Your task to perform on an android device: clear all cookies in the chrome app Image 0: 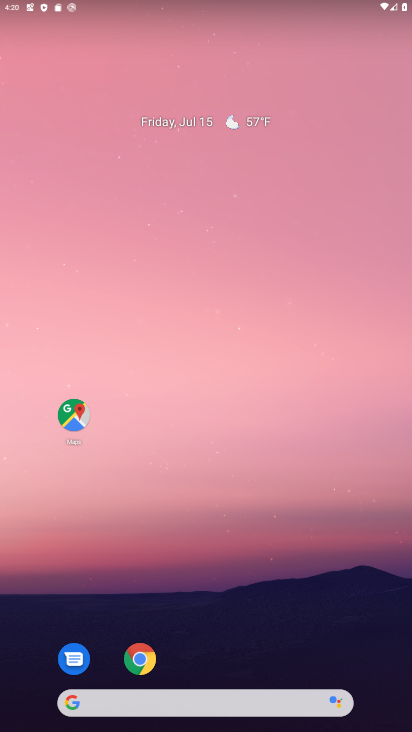
Step 0: click (139, 658)
Your task to perform on an android device: clear all cookies in the chrome app Image 1: 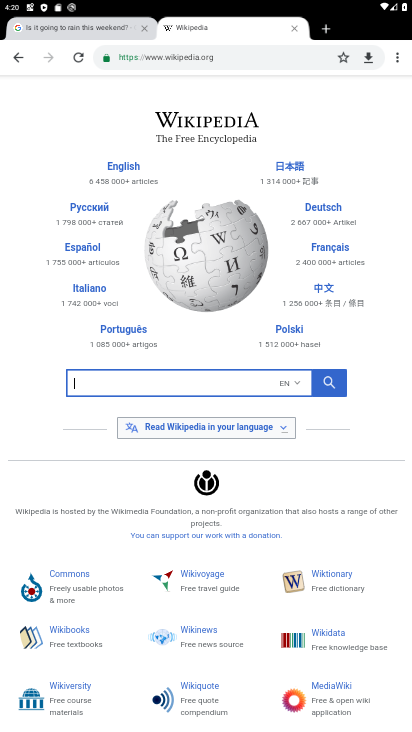
Step 1: click (399, 65)
Your task to perform on an android device: clear all cookies in the chrome app Image 2: 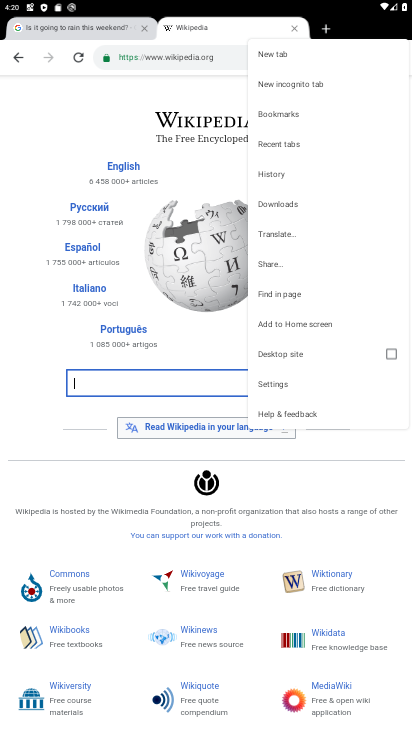
Step 2: click (284, 172)
Your task to perform on an android device: clear all cookies in the chrome app Image 3: 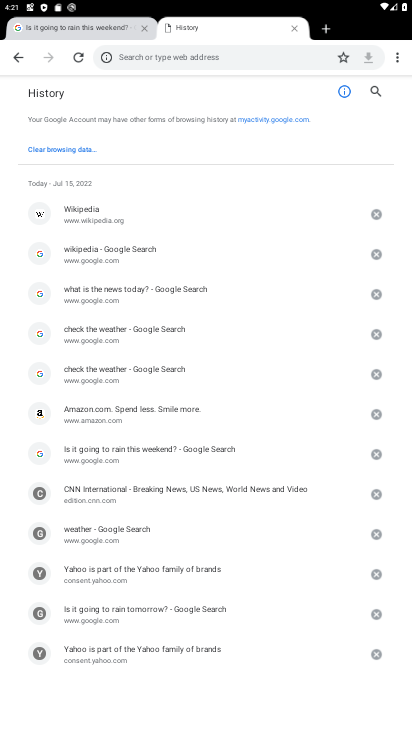
Step 3: click (76, 143)
Your task to perform on an android device: clear all cookies in the chrome app Image 4: 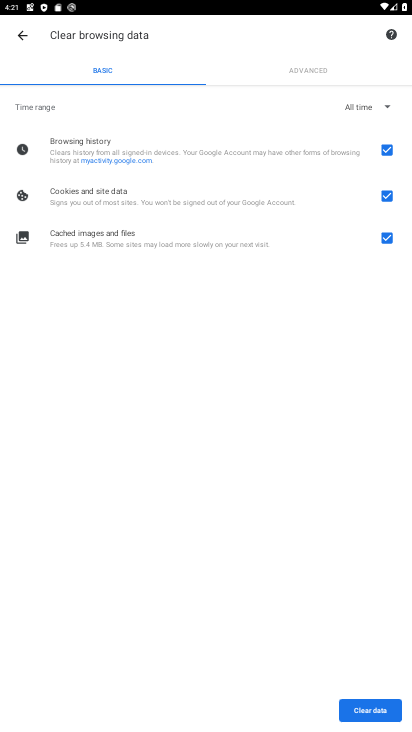
Step 4: click (387, 233)
Your task to perform on an android device: clear all cookies in the chrome app Image 5: 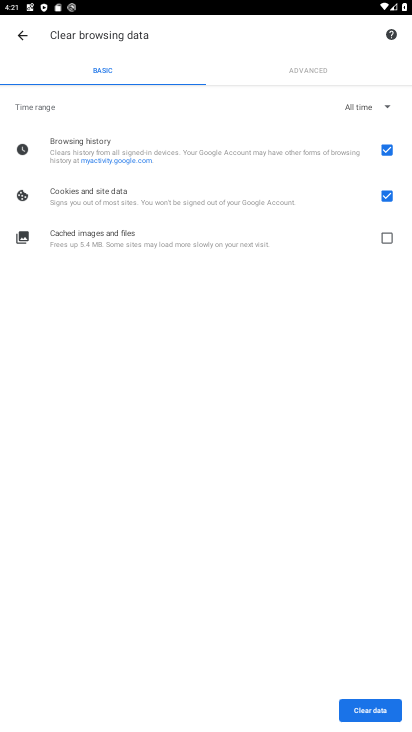
Step 5: click (387, 148)
Your task to perform on an android device: clear all cookies in the chrome app Image 6: 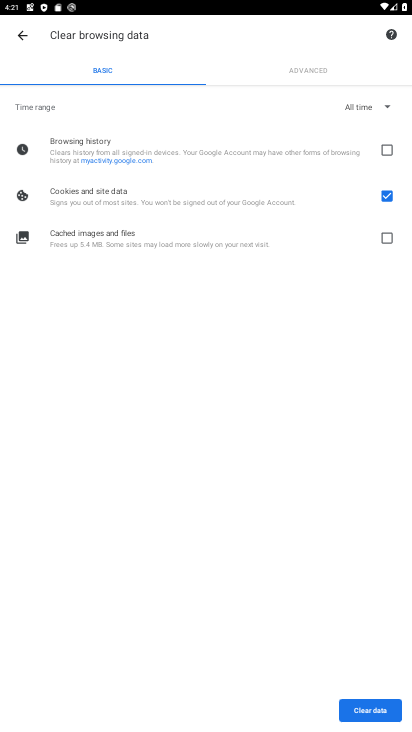
Step 6: click (383, 706)
Your task to perform on an android device: clear all cookies in the chrome app Image 7: 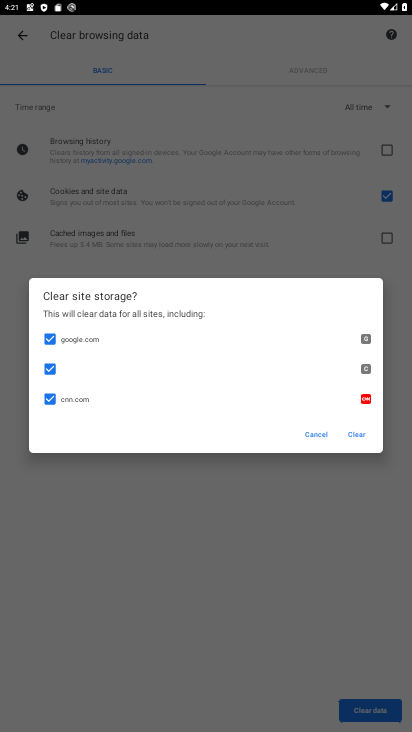
Step 7: click (360, 426)
Your task to perform on an android device: clear all cookies in the chrome app Image 8: 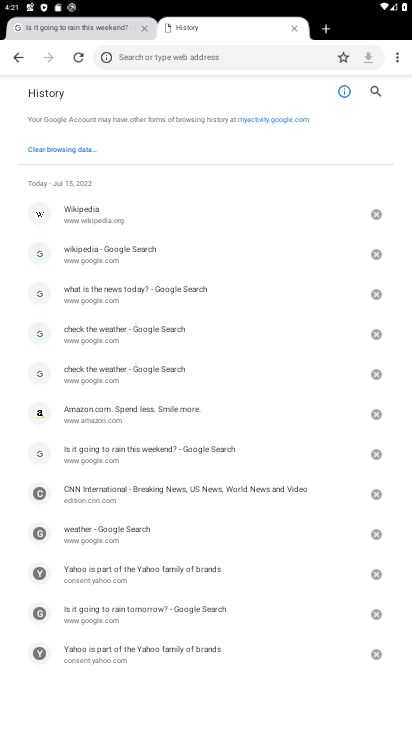
Step 8: task complete